Your task to perform on an android device: clear all cookies in the chrome app Image 0: 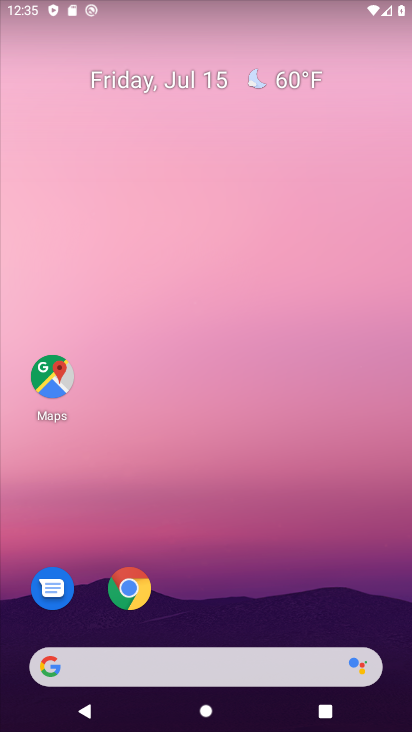
Step 0: click (130, 591)
Your task to perform on an android device: clear all cookies in the chrome app Image 1: 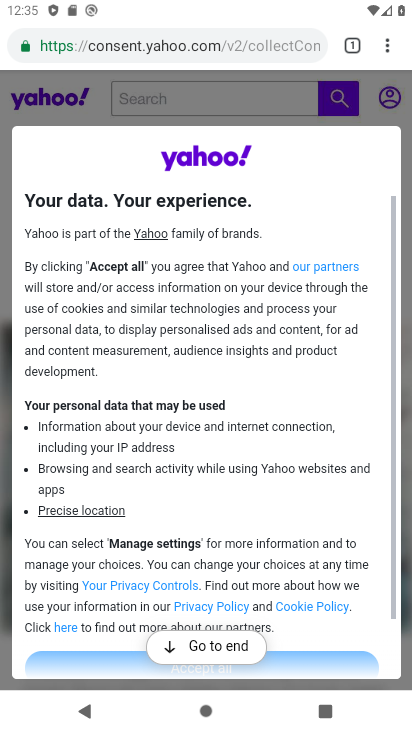
Step 1: click (383, 49)
Your task to perform on an android device: clear all cookies in the chrome app Image 2: 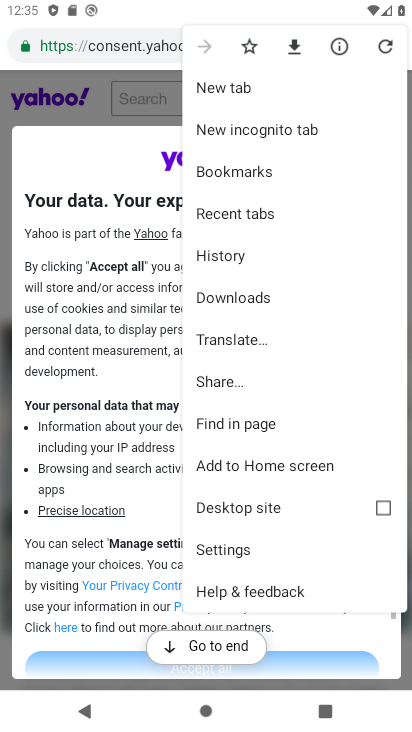
Step 2: click (224, 263)
Your task to perform on an android device: clear all cookies in the chrome app Image 3: 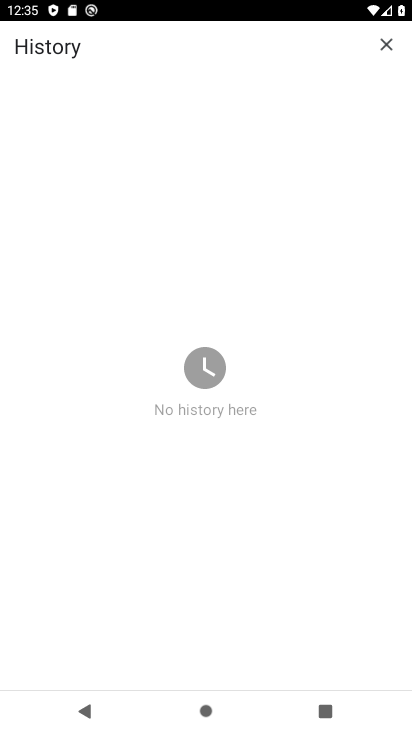
Step 3: task complete